Your task to perform on an android device: Open Maps and search for coffee Image 0: 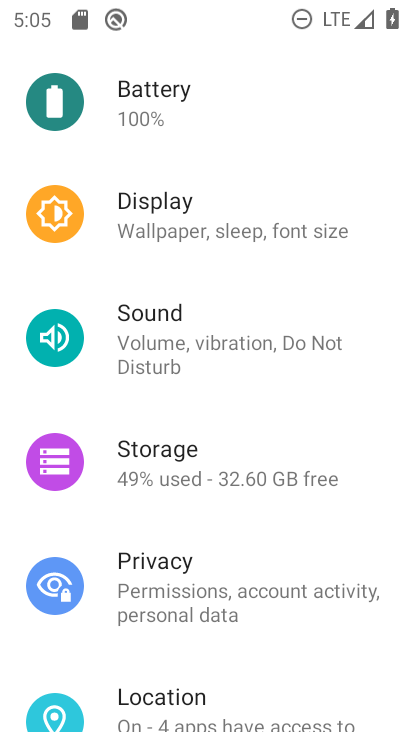
Step 0: drag from (187, 547) to (221, 153)
Your task to perform on an android device: Open Maps and search for coffee Image 1: 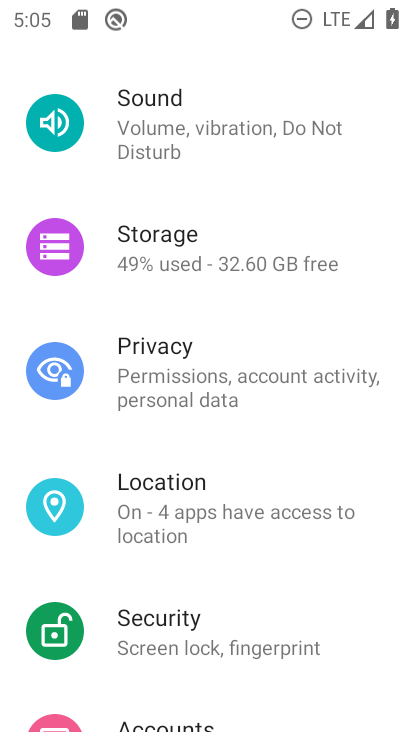
Step 1: press home button
Your task to perform on an android device: Open Maps and search for coffee Image 2: 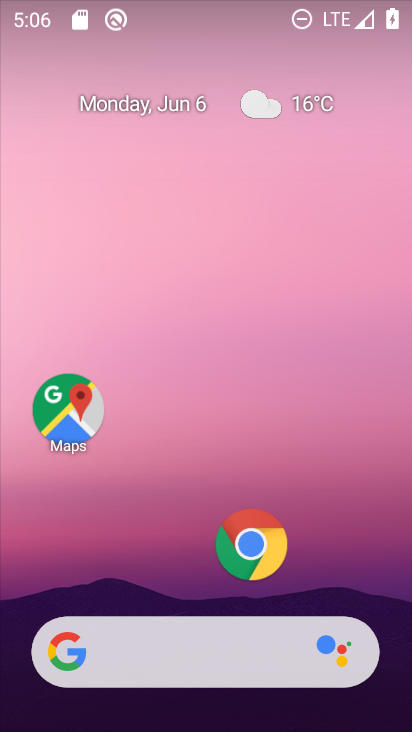
Step 2: click (69, 403)
Your task to perform on an android device: Open Maps and search for coffee Image 3: 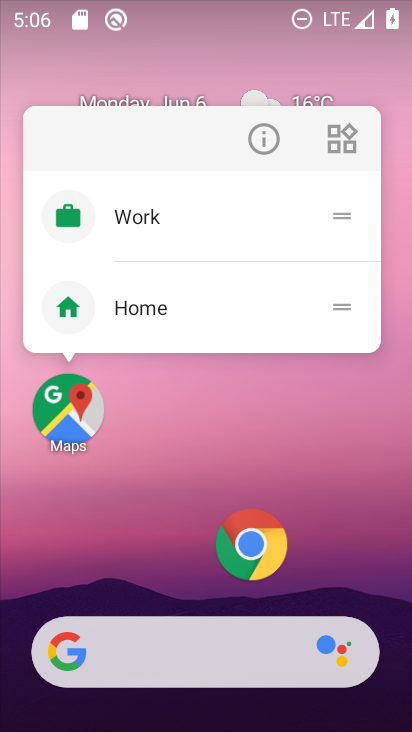
Step 3: click (67, 404)
Your task to perform on an android device: Open Maps and search for coffee Image 4: 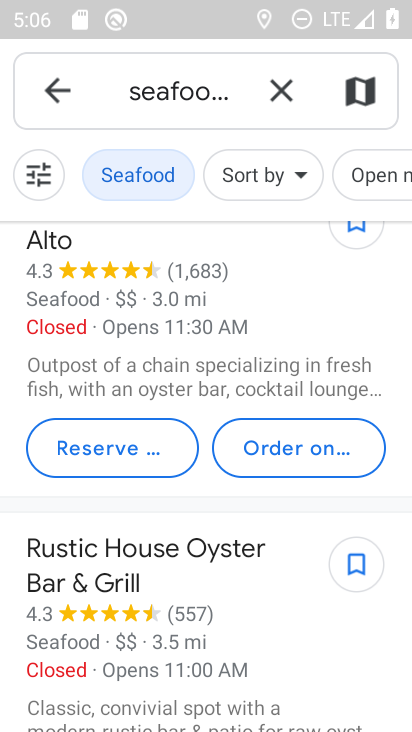
Step 4: click (284, 93)
Your task to perform on an android device: Open Maps and search for coffee Image 5: 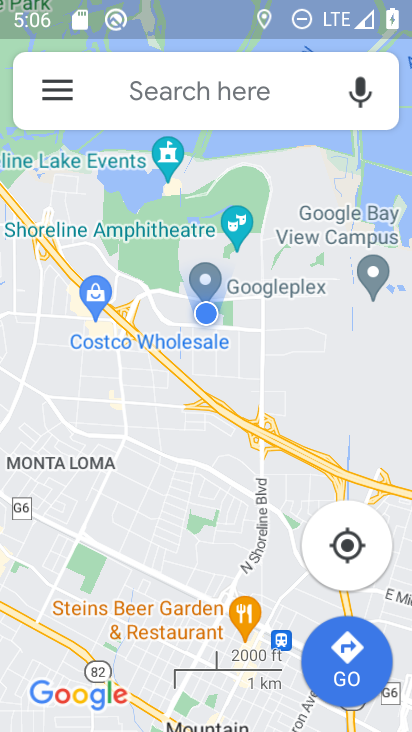
Step 5: click (173, 77)
Your task to perform on an android device: Open Maps and search for coffee Image 6: 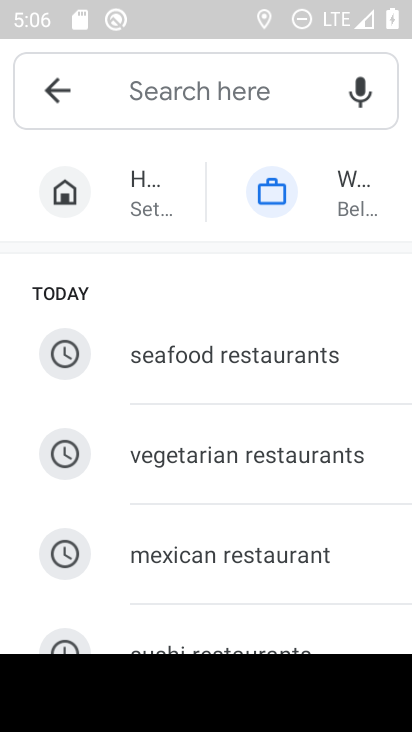
Step 6: type "coffee"
Your task to perform on an android device: Open Maps and search for coffee Image 7: 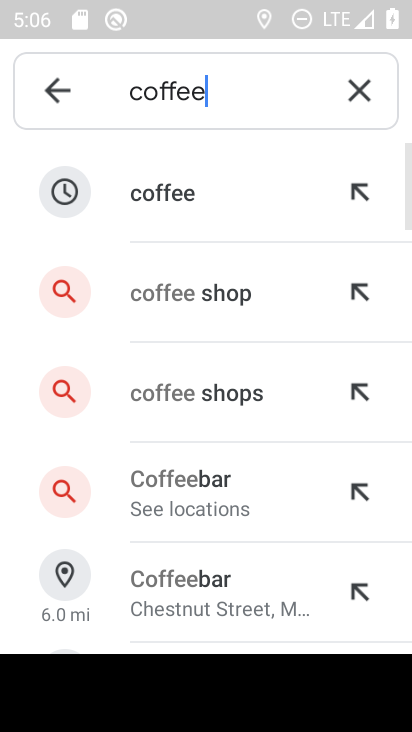
Step 7: click (214, 201)
Your task to perform on an android device: Open Maps and search for coffee Image 8: 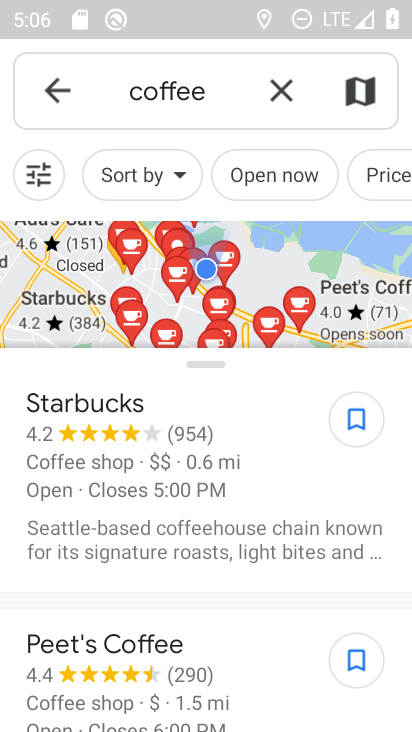
Step 8: task complete